Your task to perform on an android device: toggle wifi Image 0: 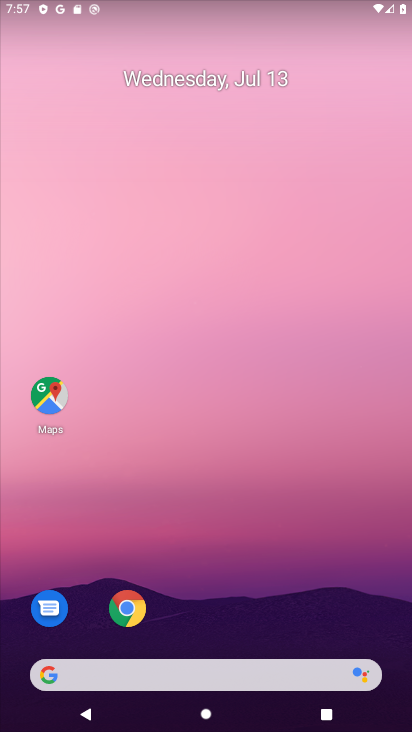
Step 0: drag from (232, 385) to (221, 101)
Your task to perform on an android device: toggle wifi Image 1: 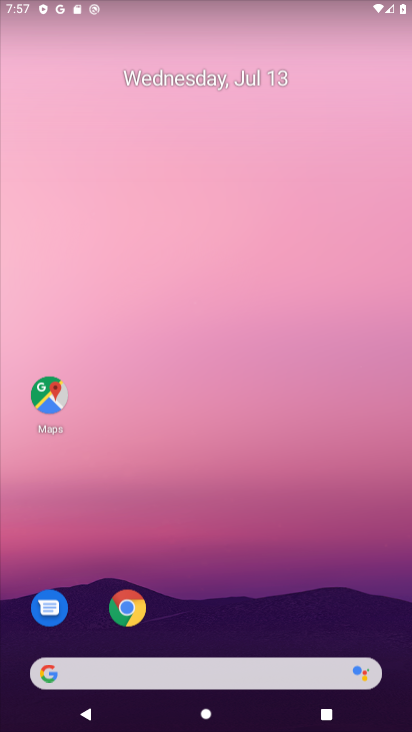
Step 1: click (182, 52)
Your task to perform on an android device: toggle wifi Image 2: 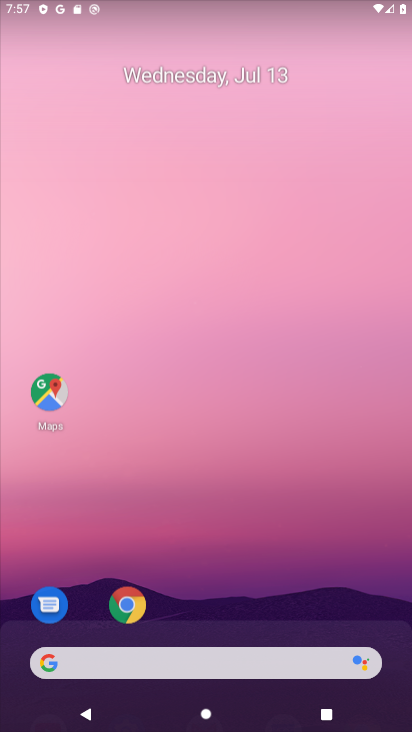
Step 2: drag from (167, 501) to (148, 30)
Your task to perform on an android device: toggle wifi Image 3: 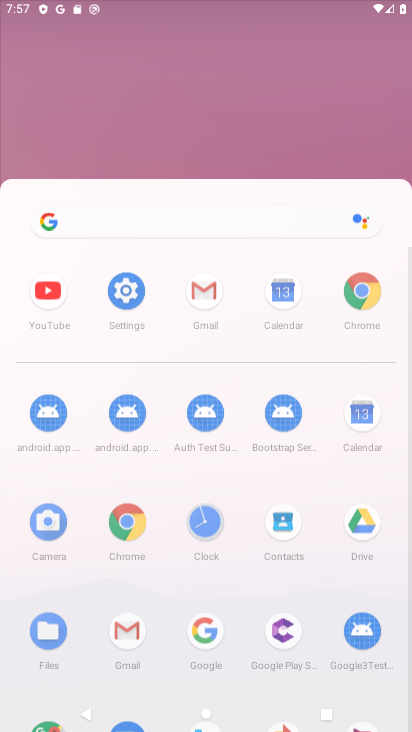
Step 3: drag from (169, 553) to (206, 157)
Your task to perform on an android device: toggle wifi Image 4: 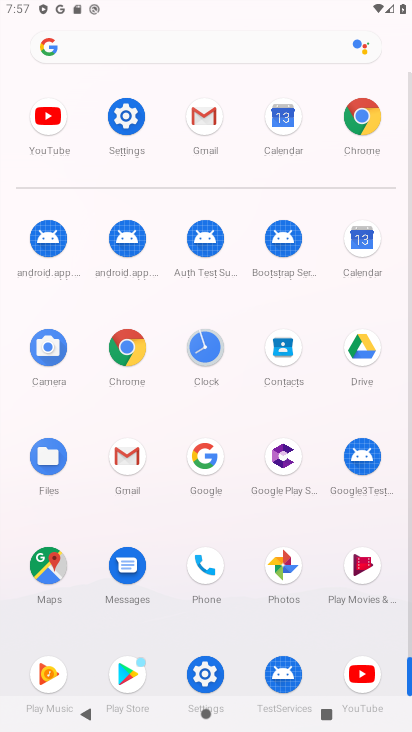
Step 4: drag from (237, 523) to (272, 101)
Your task to perform on an android device: toggle wifi Image 5: 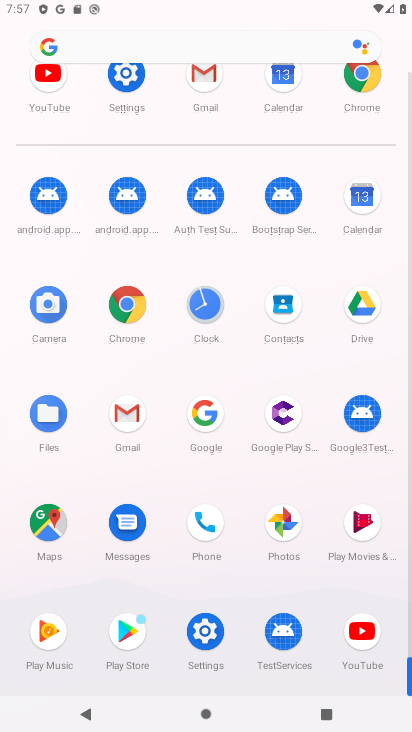
Step 5: click (127, 79)
Your task to perform on an android device: toggle wifi Image 6: 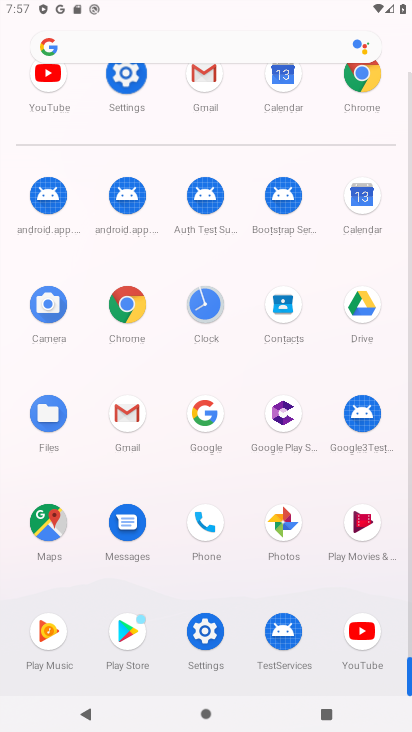
Step 6: click (128, 79)
Your task to perform on an android device: toggle wifi Image 7: 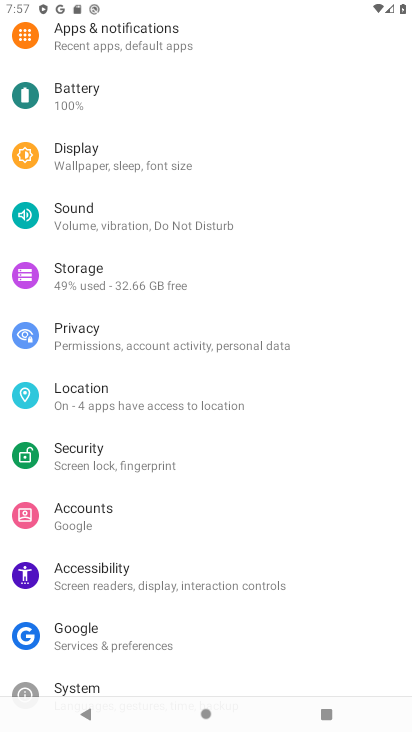
Step 7: drag from (108, 134) to (120, 636)
Your task to perform on an android device: toggle wifi Image 8: 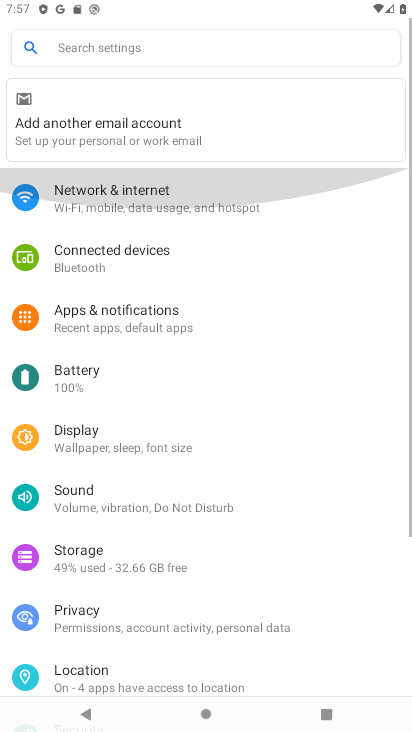
Step 8: drag from (41, 198) to (109, 513)
Your task to perform on an android device: toggle wifi Image 9: 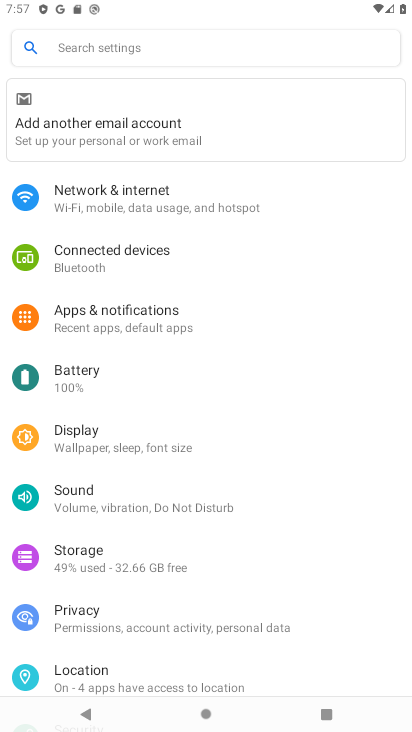
Step 9: click (119, 198)
Your task to perform on an android device: toggle wifi Image 10: 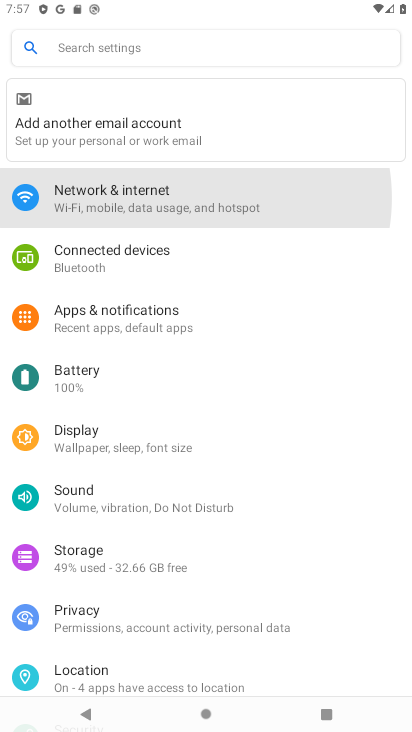
Step 10: click (121, 197)
Your task to perform on an android device: toggle wifi Image 11: 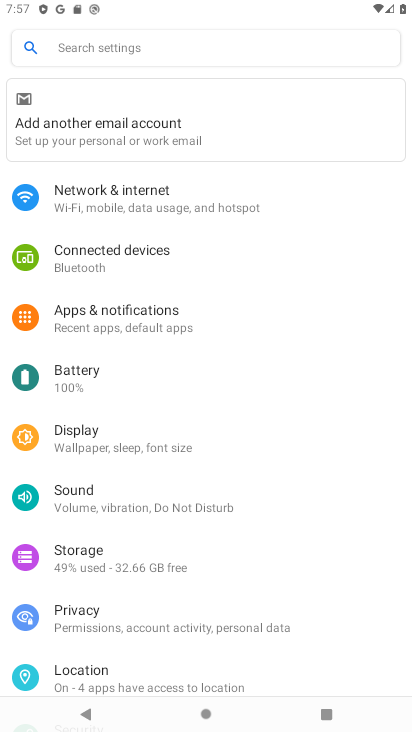
Step 11: click (122, 198)
Your task to perform on an android device: toggle wifi Image 12: 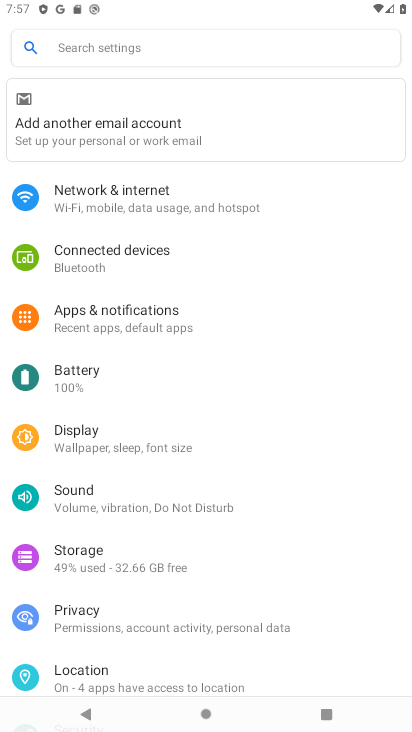
Step 12: click (124, 198)
Your task to perform on an android device: toggle wifi Image 13: 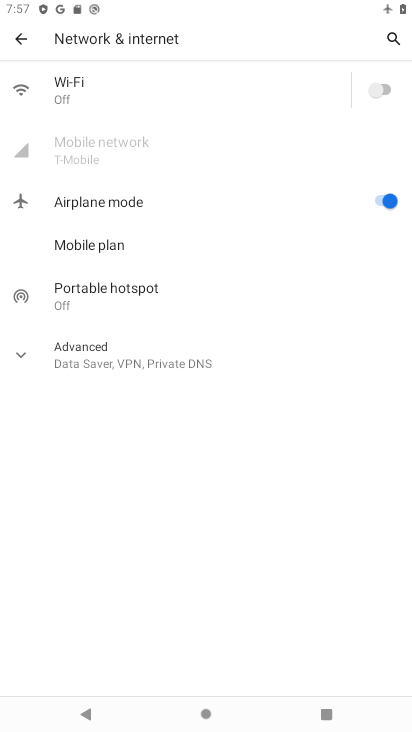
Step 13: click (390, 206)
Your task to perform on an android device: toggle wifi Image 14: 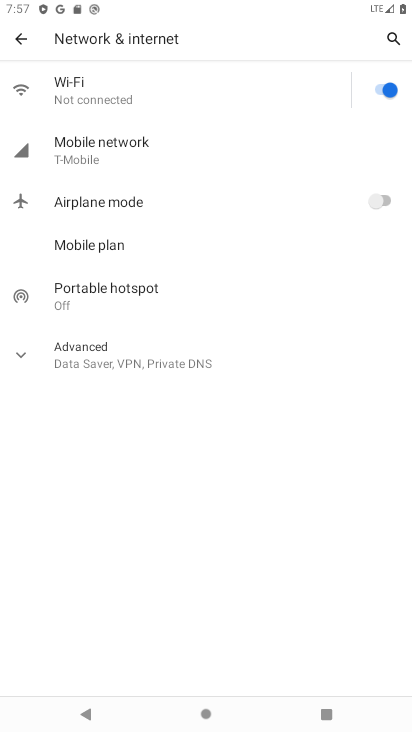
Step 14: task complete